Your task to perform on an android device: Open CNN.com Image 0: 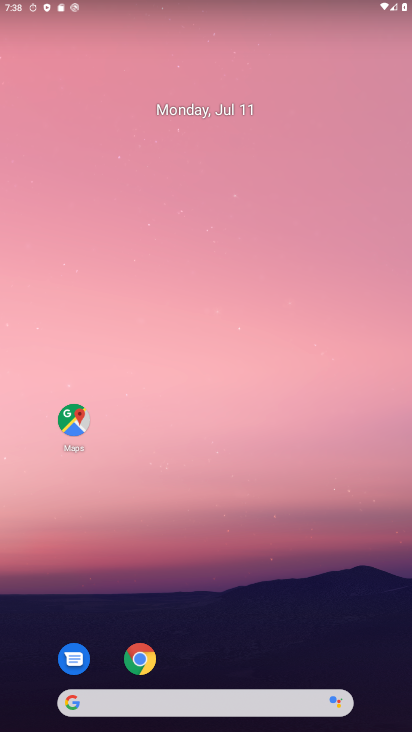
Step 0: drag from (280, 649) to (244, 7)
Your task to perform on an android device: Open CNN.com Image 1: 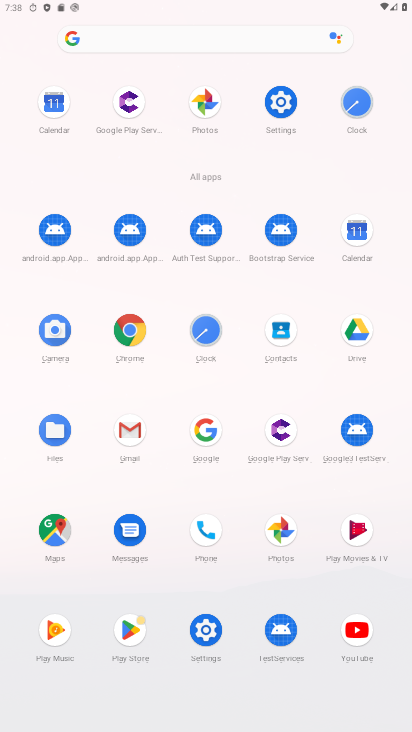
Step 1: click (133, 342)
Your task to perform on an android device: Open CNN.com Image 2: 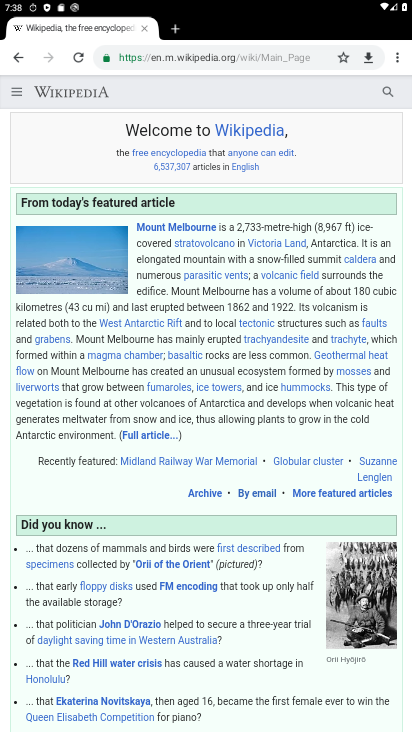
Step 2: click (12, 59)
Your task to perform on an android device: Open CNN.com Image 3: 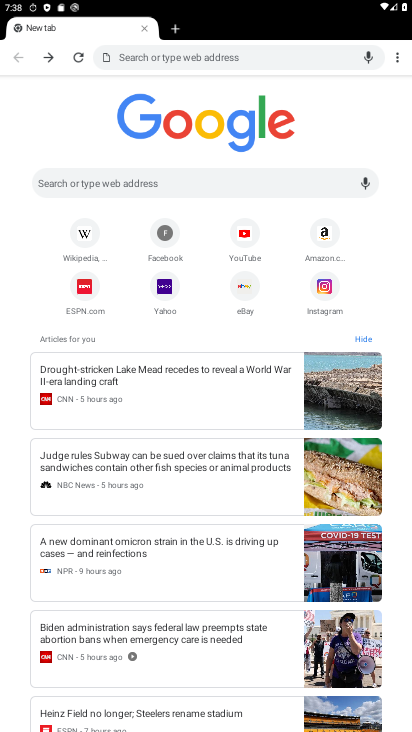
Step 3: click (193, 170)
Your task to perform on an android device: Open CNN.com Image 4: 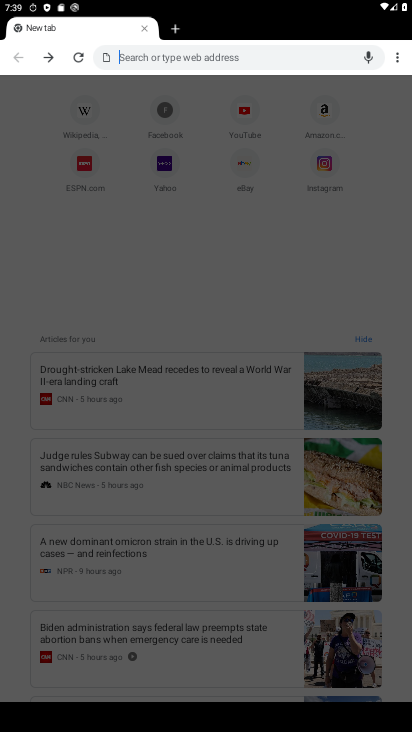
Step 4: type "cnn.com"
Your task to perform on an android device: Open CNN.com Image 5: 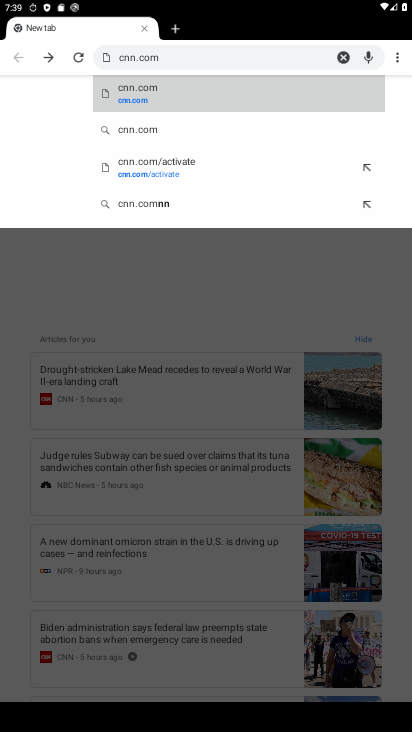
Step 5: click (146, 92)
Your task to perform on an android device: Open CNN.com Image 6: 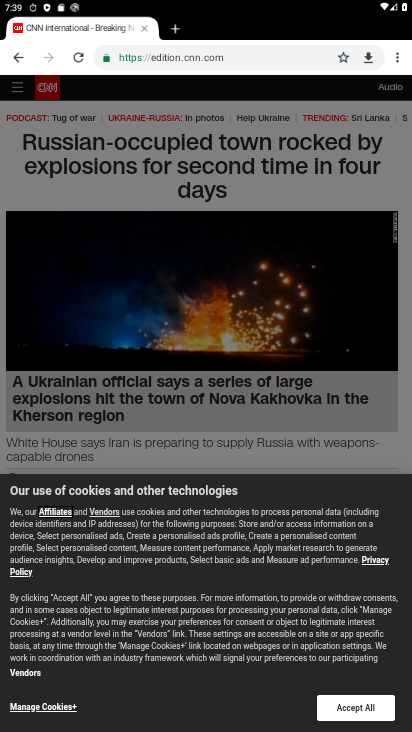
Step 6: task complete